Your task to perform on an android device: Clear all items from cart on target. Search for "razer nari" on target, select the first entry, add it to the cart, then select checkout. Image 0: 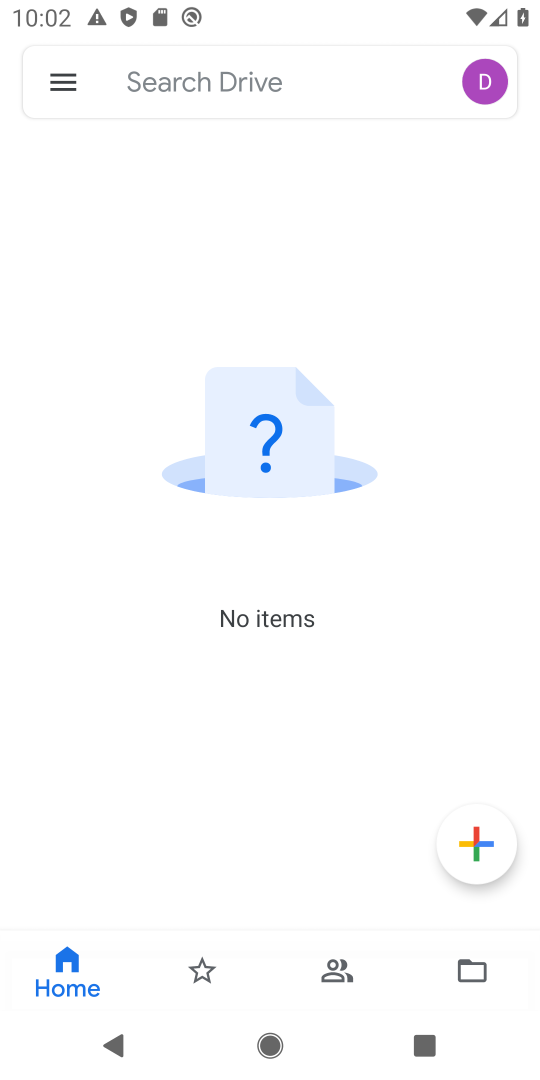
Step 0: press home button
Your task to perform on an android device: Clear all items from cart on target. Search for "razer nari" on target, select the first entry, add it to the cart, then select checkout. Image 1: 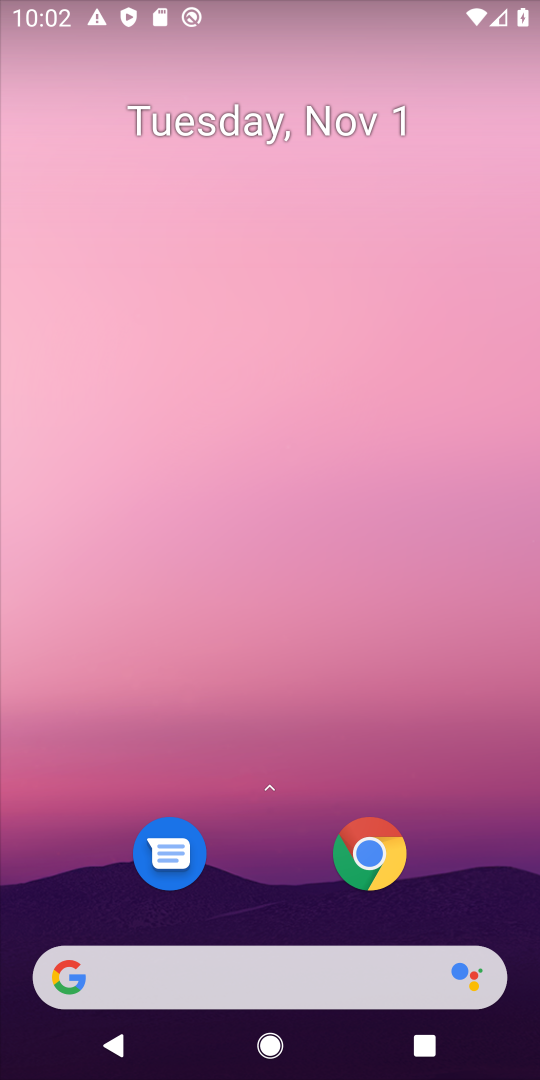
Step 1: click (161, 985)
Your task to perform on an android device: Clear all items from cart on target. Search for "razer nari" on target, select the first entry, add it to the cart, then select checkout. Image 2: 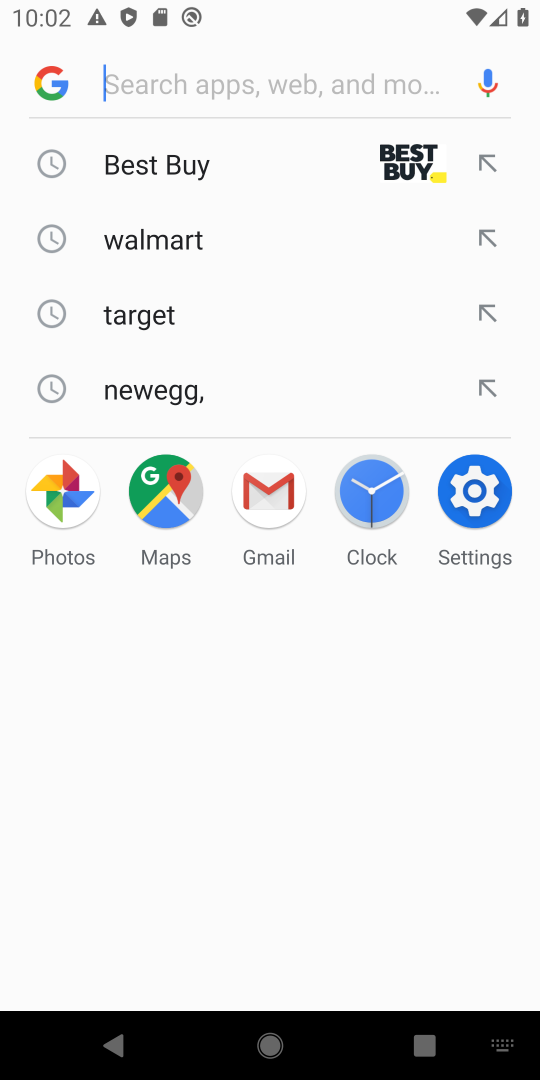
Step 2: click (202, 301)
Your task to perform on an android device: Clear all items from cart on target. Search for "razer nari" on target, select the first entry, add it to the cart, then select checkout. Image 3: 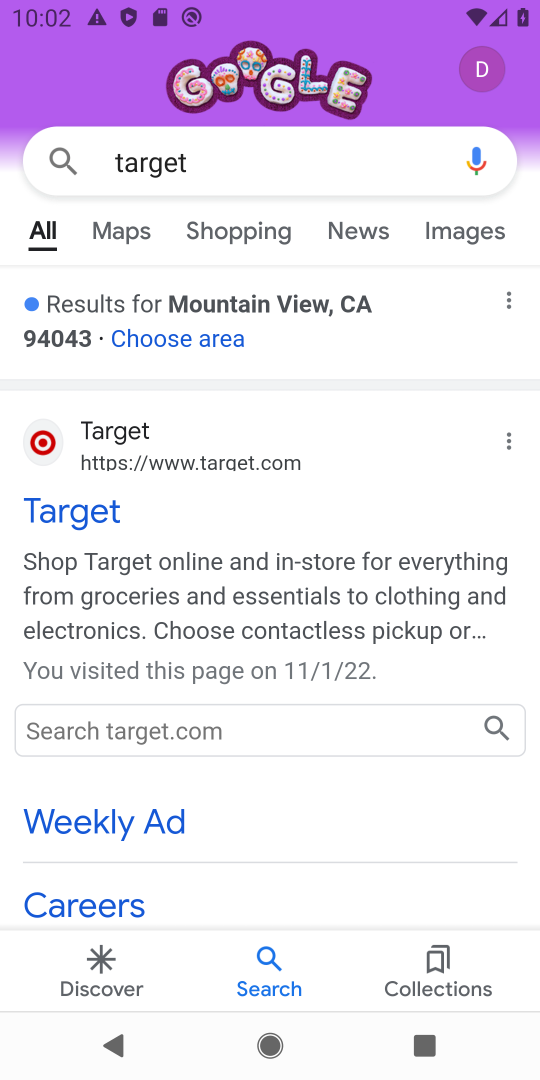
Step 3: click (168, 439)
Your task to perform on an android device: Clear all items from cart on target. Search for "razer nari" on target, select the first entry, add it to the cart, then select checkout. Image 4: 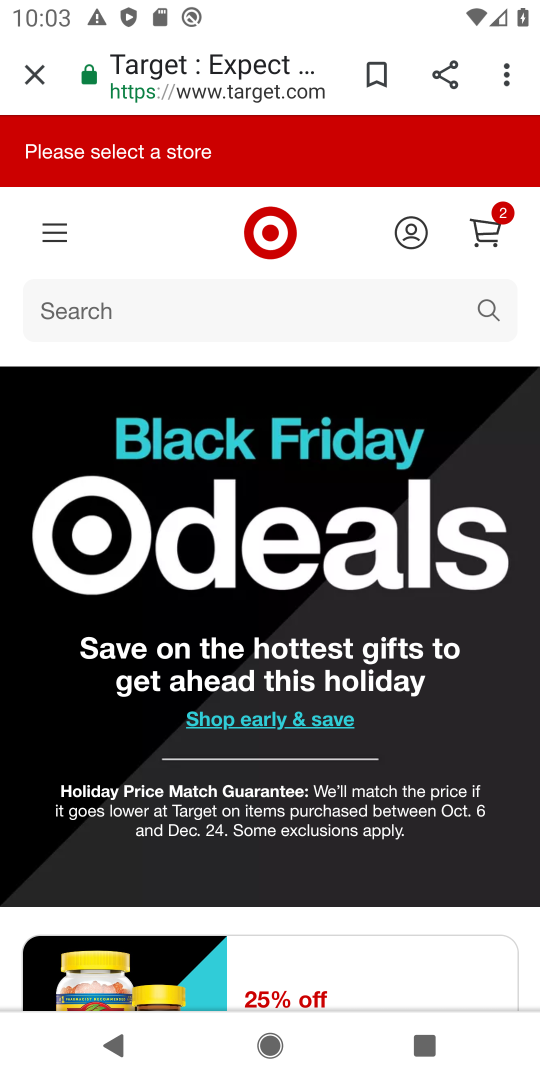
Step 4: click (414, 317)
Your task to perform on an android device: Clear all items from cart on target. Search for "razer nari" on target, select the first entry, add it to the cart, then select checkout. Image 5: 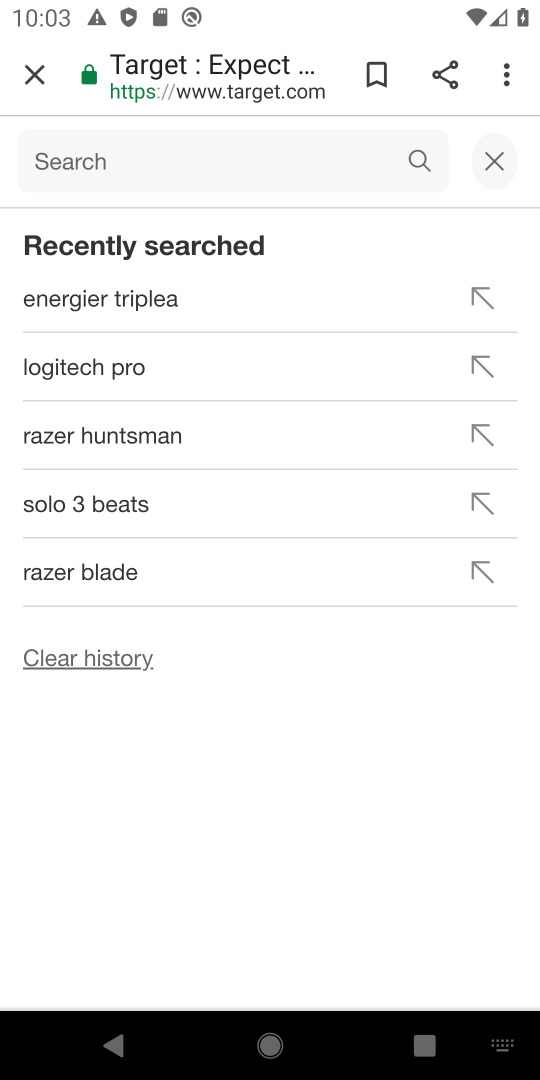
Step 5: click (384, 152)
Your task to perform on an android device: Clear all items from cart on target. Search for "razer nari" on target, select the first entry, add it to the cart, then select checkout. Image 6: 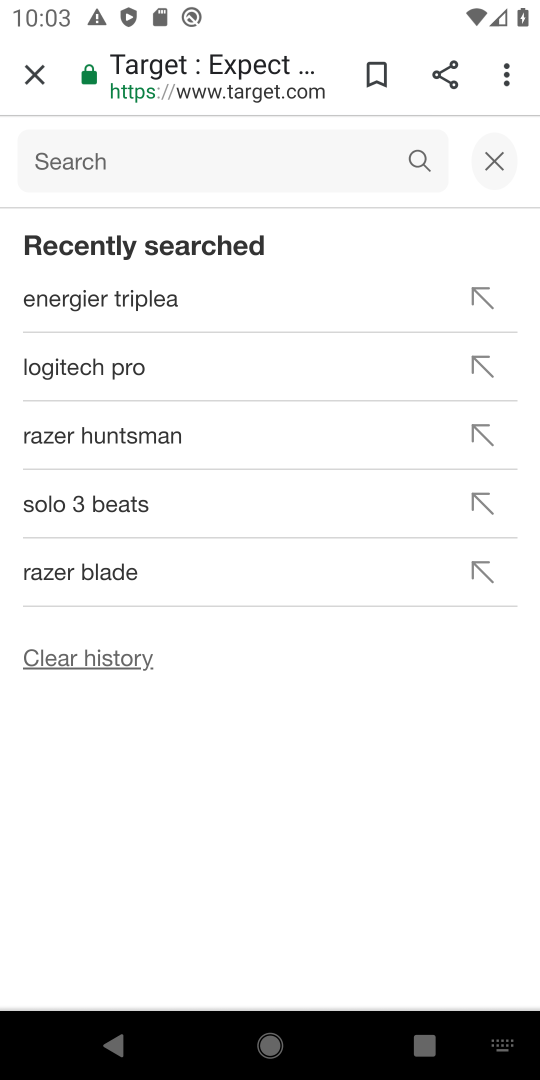
Step 6: type "razer nari"
Your task to perform on an android device: Clear all items from cart on target. Search for "razer nari" on target, select the first entry, add it to the cart, then select checkout. Image 7: 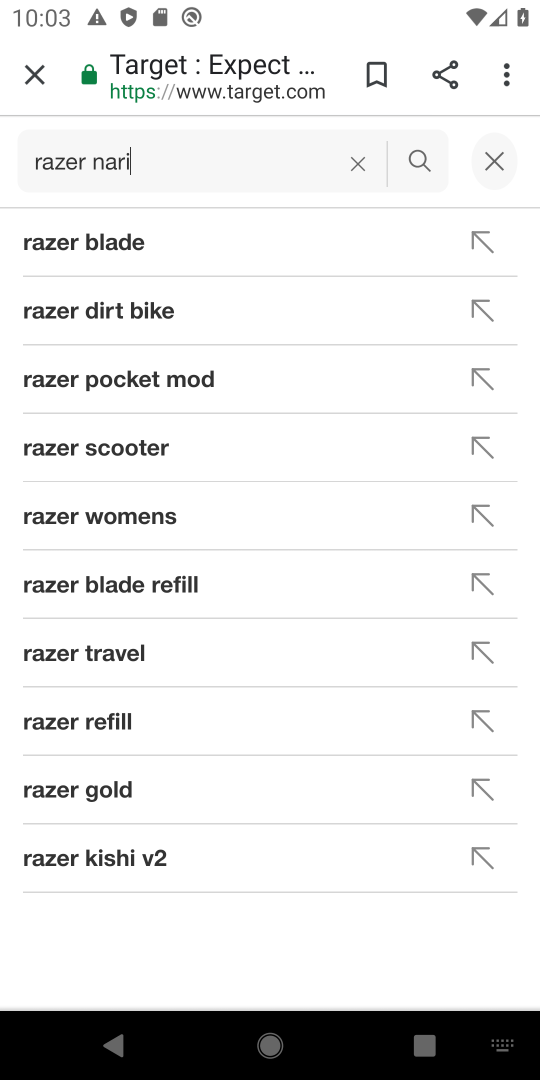
Step 7: click (120, 269)
Your task to perform on an android device: Clear all items from cart on target. Search for "razer nari" on target, select the first entry, add it to the cart, then select checkout. Image 8: 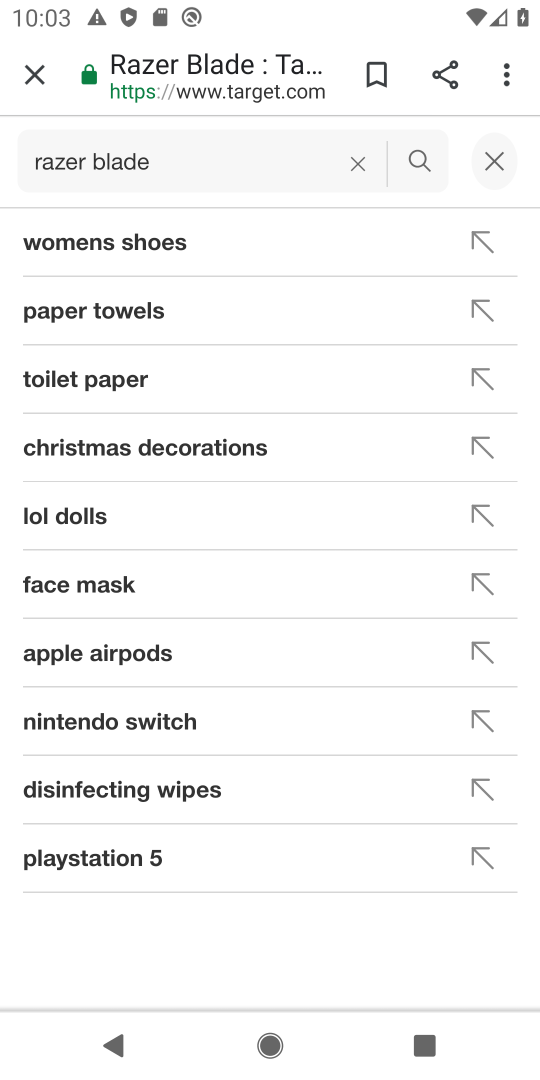
Step 8: task complete